Your task to perform on an android device: open a bookmark in the chrome app Image 0: 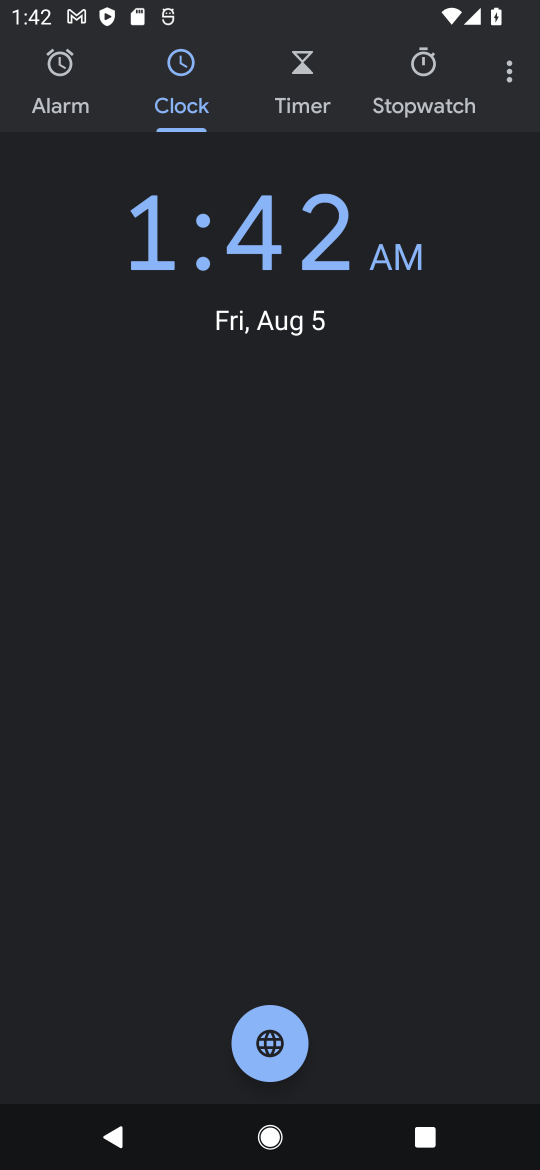
Step 0: press home button
Your task to perform on an android device: open a bookmark in the chrome app Image 1: 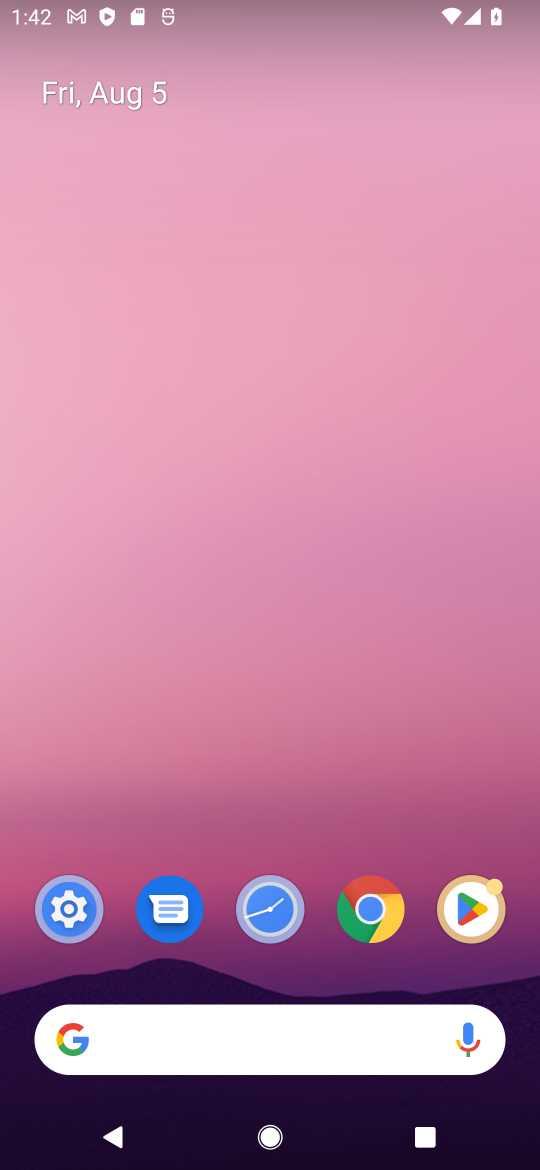
Step 1: click (363, 907)
Your task to perform on an android device: open a bookmark in the chrome app Image 2: 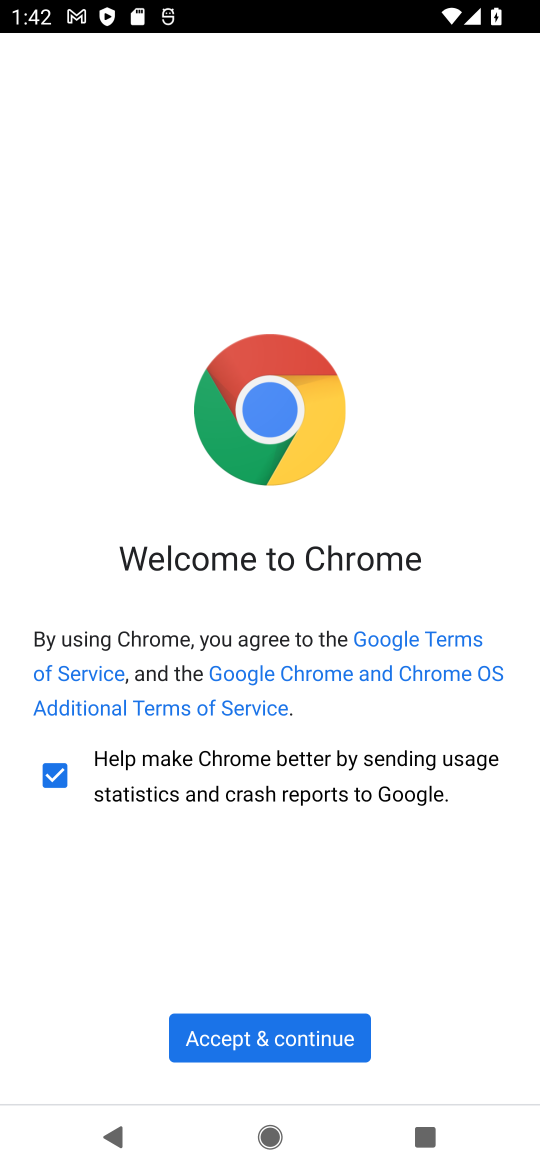
Step 2: click (268, 1030)
Your task to perform on an android device: open a bookmark in the chrome app Image 3: 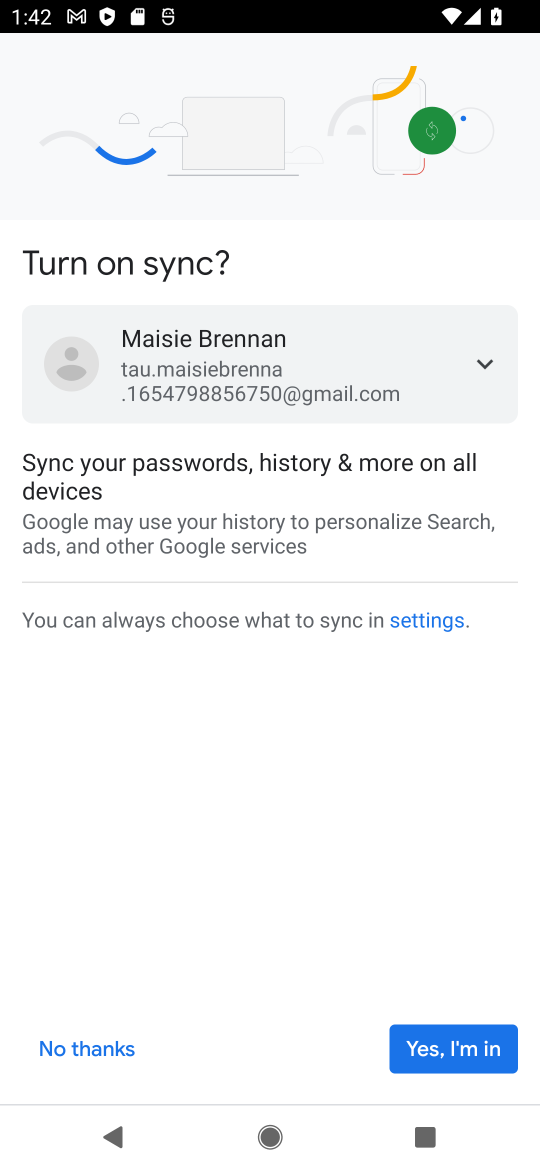
Step 3: click (415, 1038)
Your task to perform on an android device: open a bookmark in the chrome app Image 4: 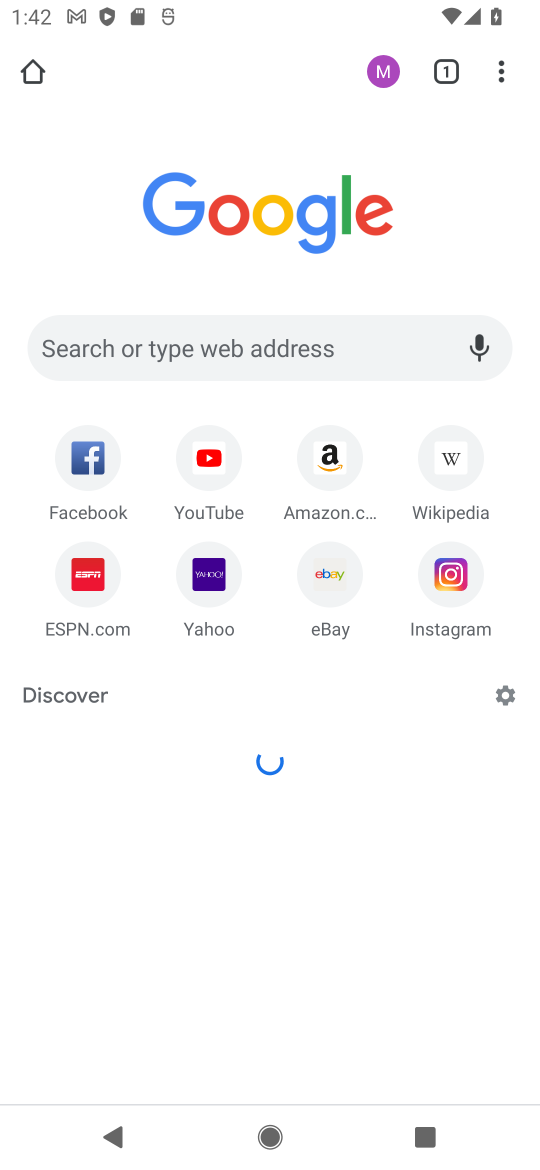
Step 4: click (494, 69)
Your task to perform on an android device: open a bookmark in the chrome app Image 5: 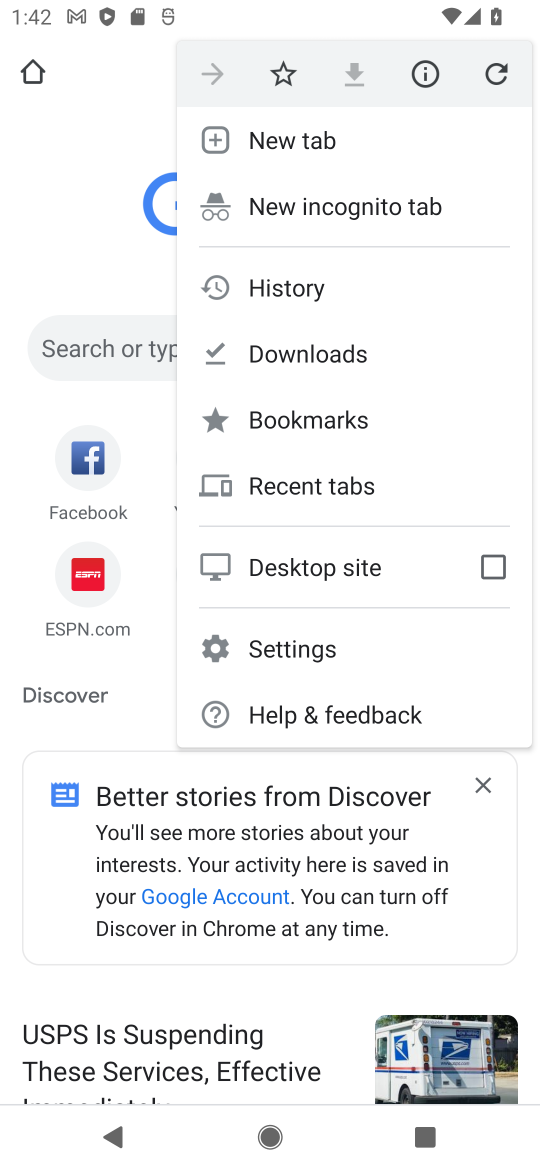
Step 5: click (353, 426)
Your task to perform on an android device: open a bookmark in the chrome app Image 6: 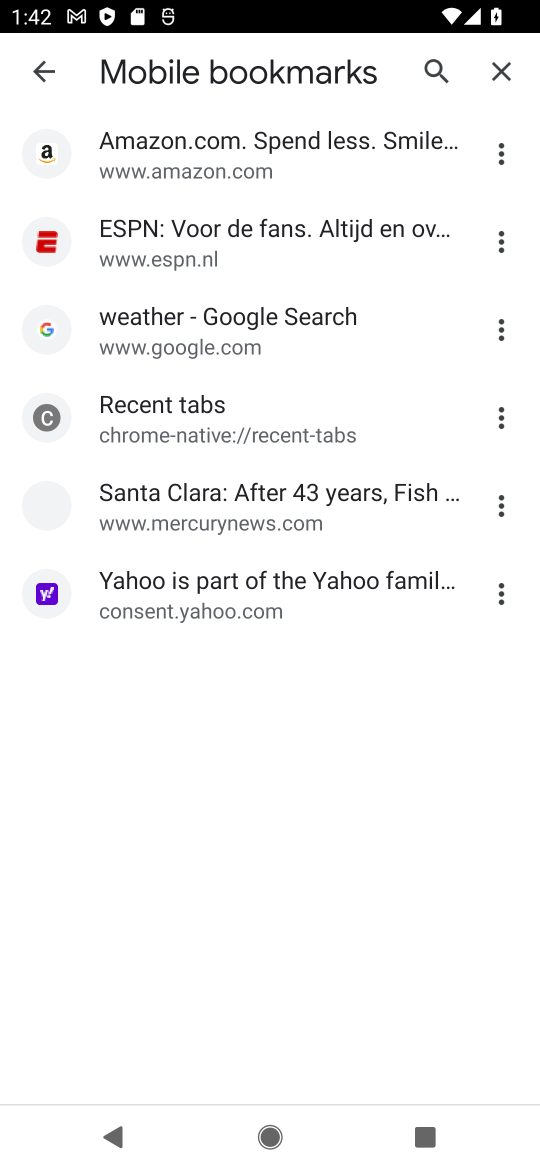
Step 6: click (283, 264)
Your task to perform on an android device: open a bookmark in the chrome app Image 7: 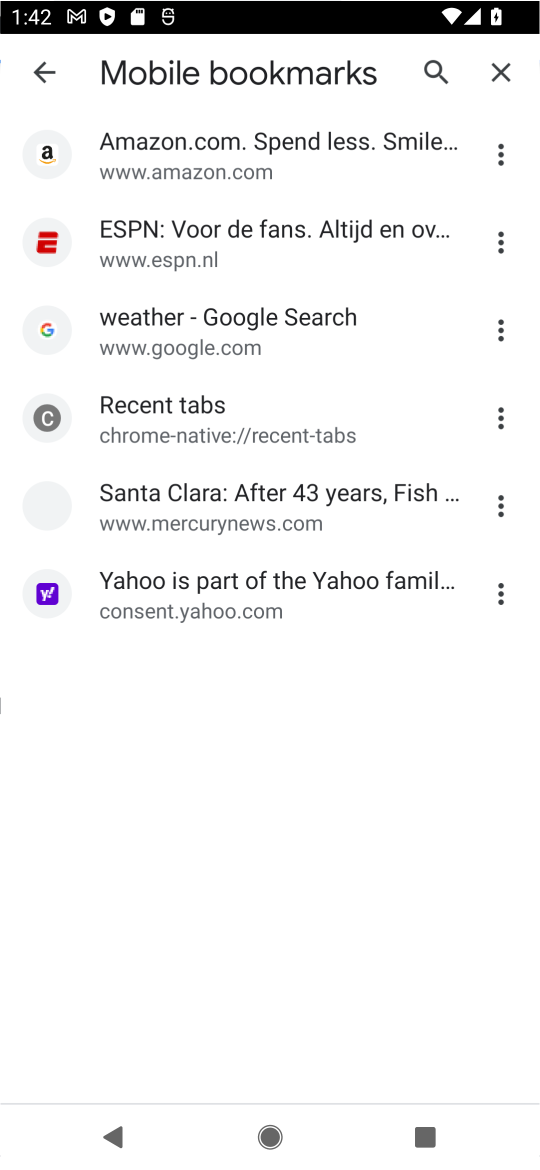
Step 7: task complete